Your task to perform on an android device: View the shopping cart on costco. Add "energizer triple a" to the cart on costco Image 0: 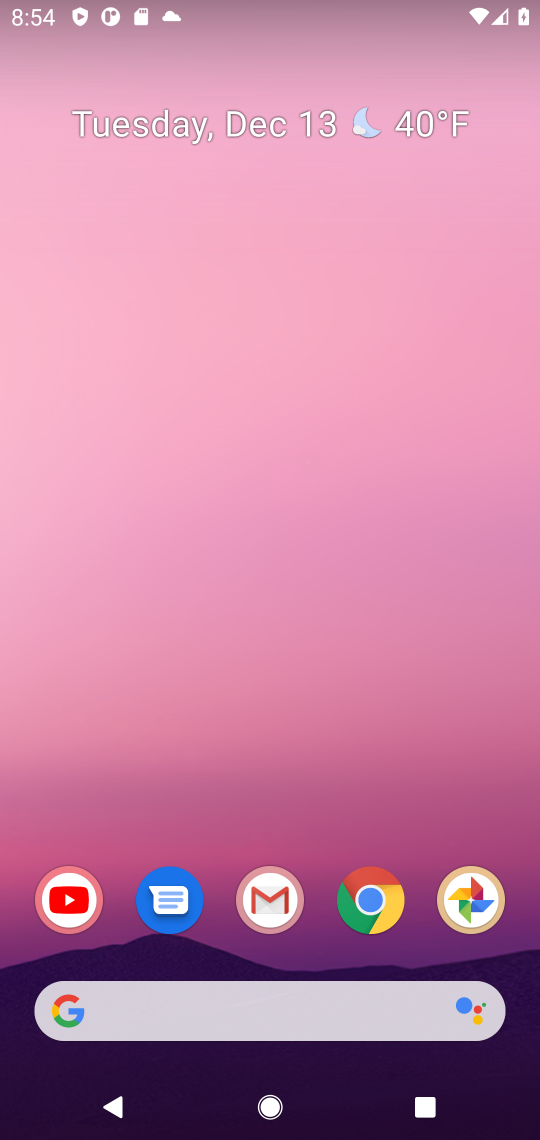
Step 0: click (365, 890)
Your task to perform on an android device: View the shopping cart on costco. Add "energizer triple a" to the cart on costco Image 1: 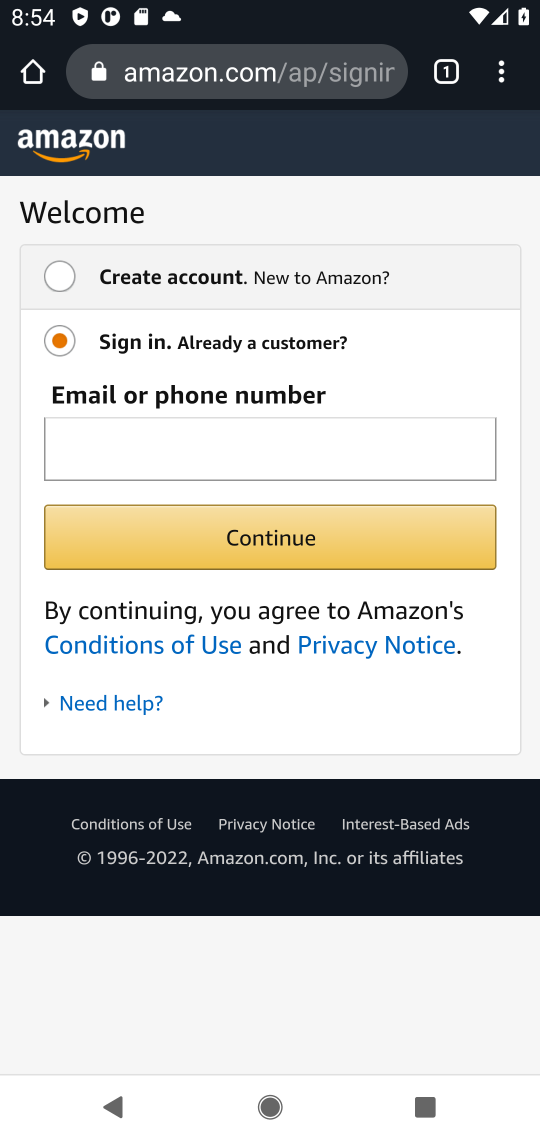
Step 1: click (289, 69)
Your task to perform on an android device: View the shopping cart on costco. Add "energizer triple a" to the cart on costco Image 2: 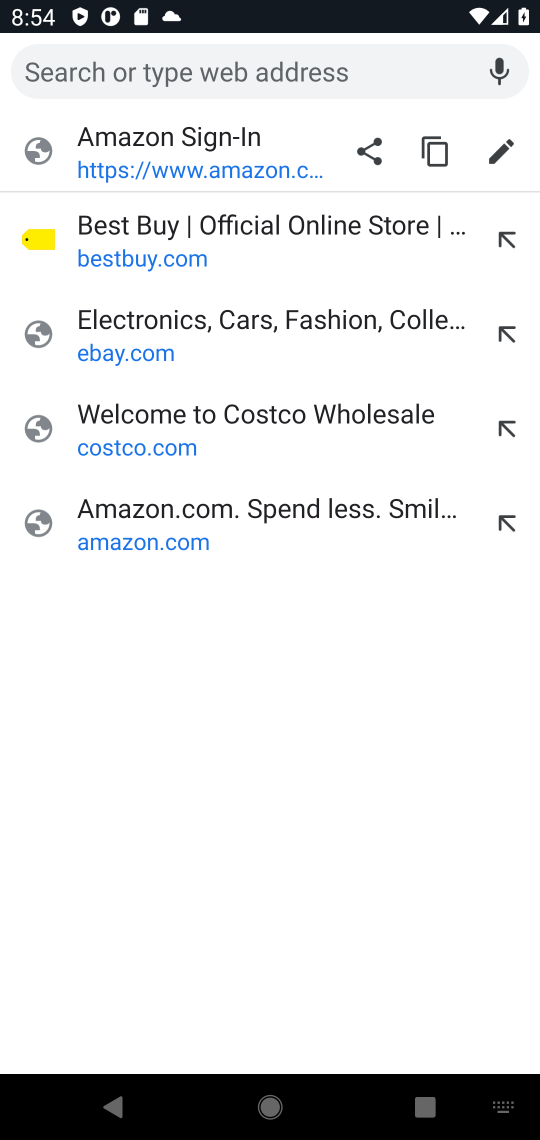
Step 2: click (194, 421)
Your task to perform on an android device: View the shopping cart on costco. Add "energizer triple a" to the cart on costco Image 3: 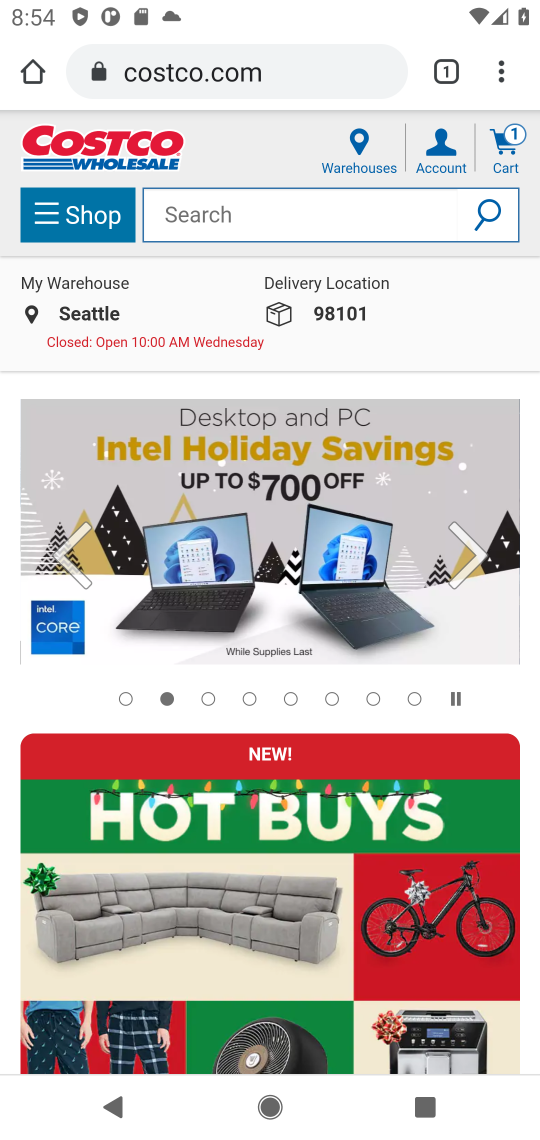
Step 3: click (388, 213)
Your task to perform on an android device: View the shopping cart on costco. Add "energizer triple a" to the cart on costco Image 4: 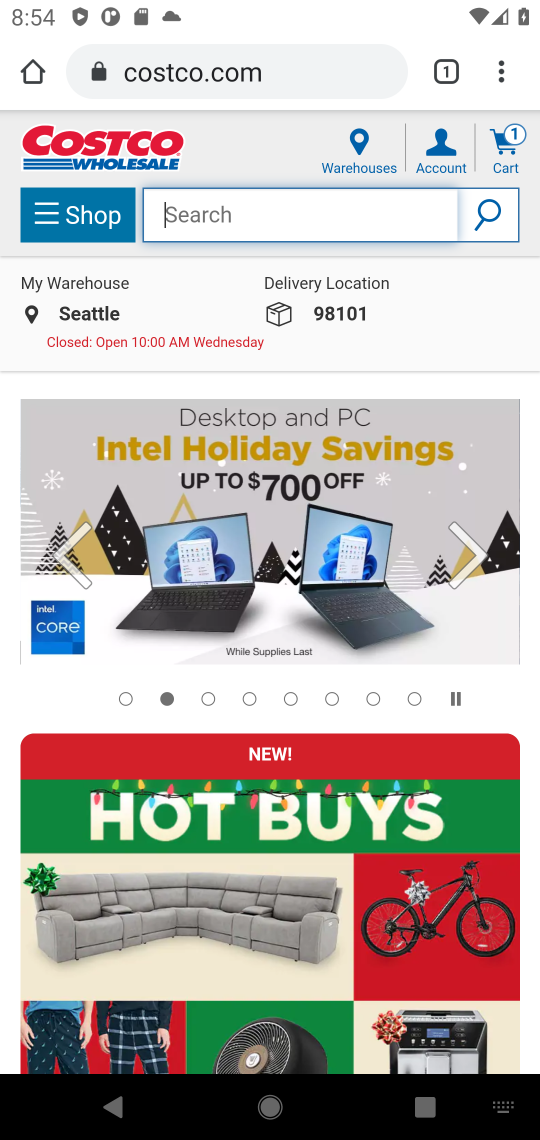
Step 4: type "energizer triple a"
Your task to perform on an android device: View the shopping cart on costco. Add "energizer triple a" to the cart on costco Image 5: 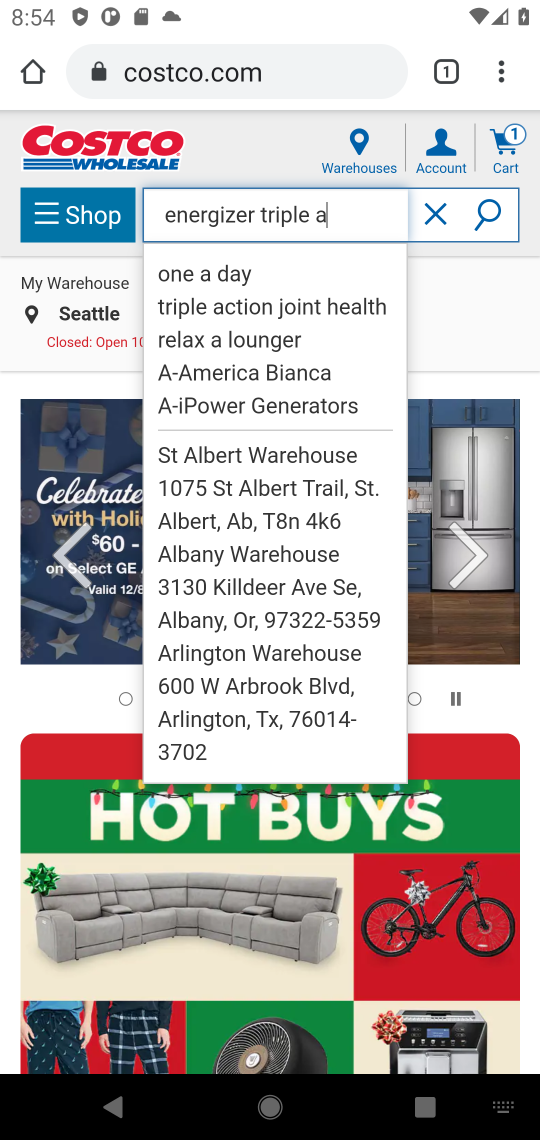
Step 5: click (266, 275)
Your task to perform on an android device: View the shopping cart on costco. Add "energizer triple a" to the cart on costco Image 6: 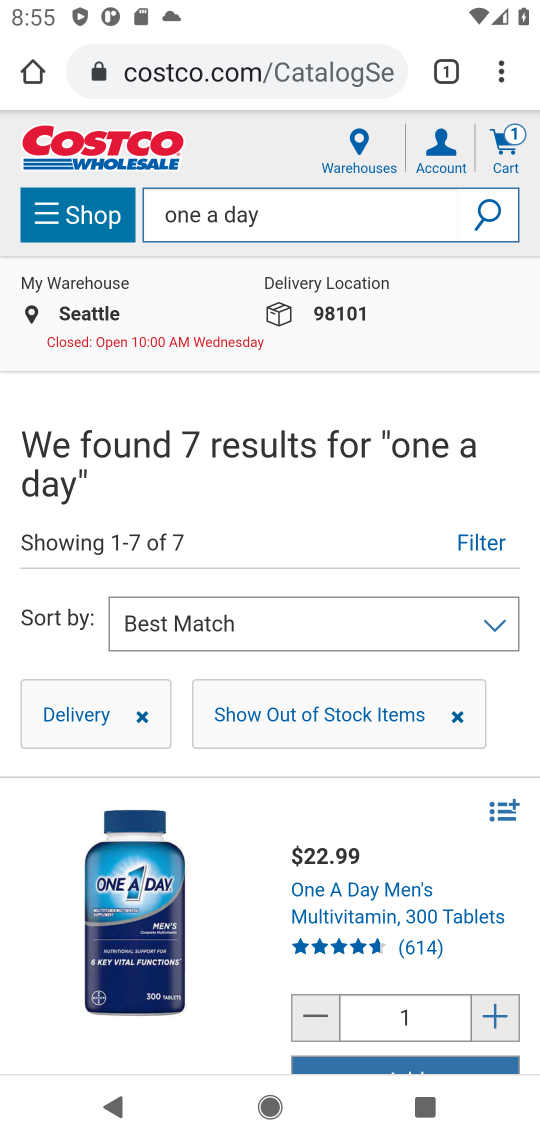
Step 6: drag from (287, 944) to (244, 356)
Your task to perform on an android device: View the shopping cart on costco. Add "energizer triple a" to the cart on costco Image 7: 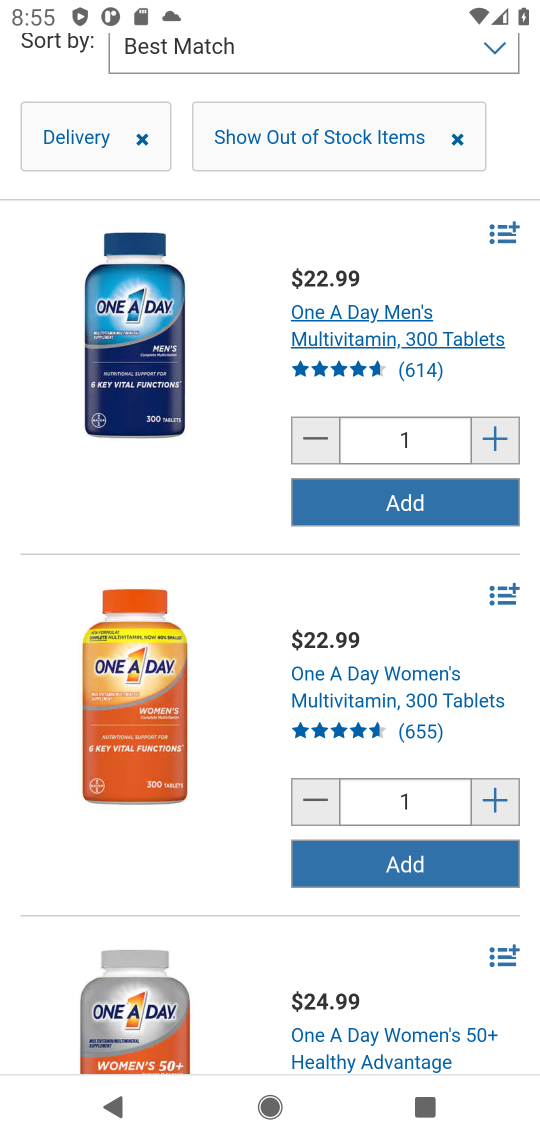
Step 7: click (433, 502)
Your task to perform on an android device: View the shopping cart on costco. Add "energizer triple a" to the cart on costco Image 8: 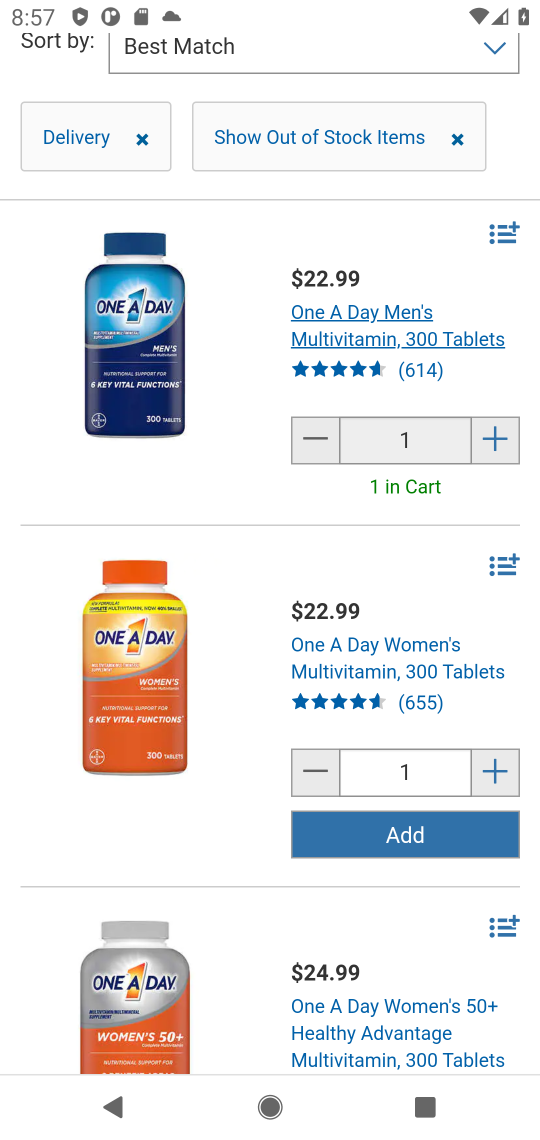
Step 8: task complete